Your task to perform on an android device: turn off location history Image 0: 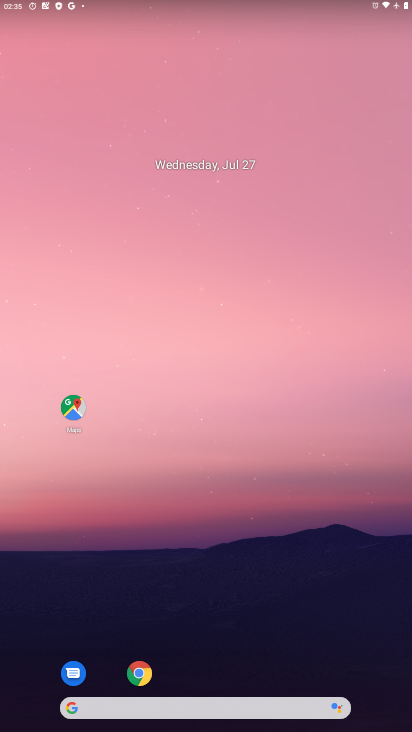
Step 0: click (71, 404)
Your task to perform on an android device: turn off location history Image 1: 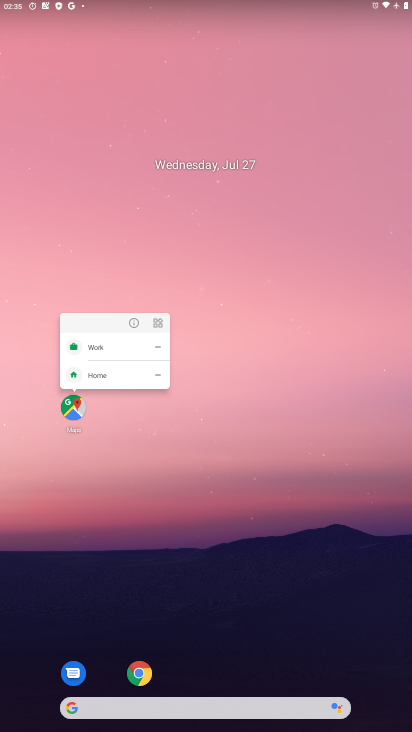
Step 1: click (72, 407)
Your task to perform on an android device: turn off location history Image 2: 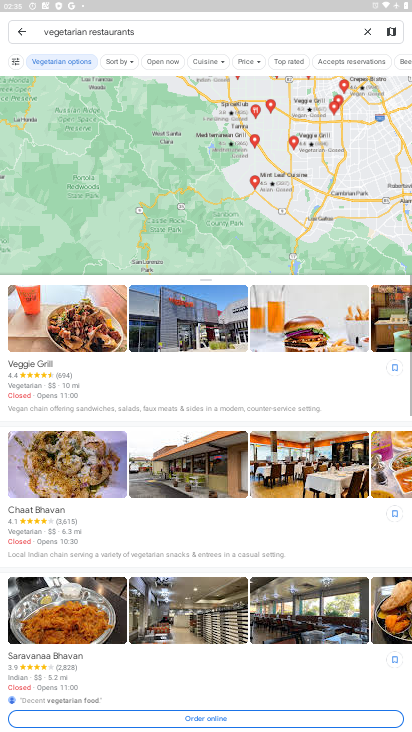
Step 2: click (369, 31)
Your task to perform on an android device: turn off location history Image 3: 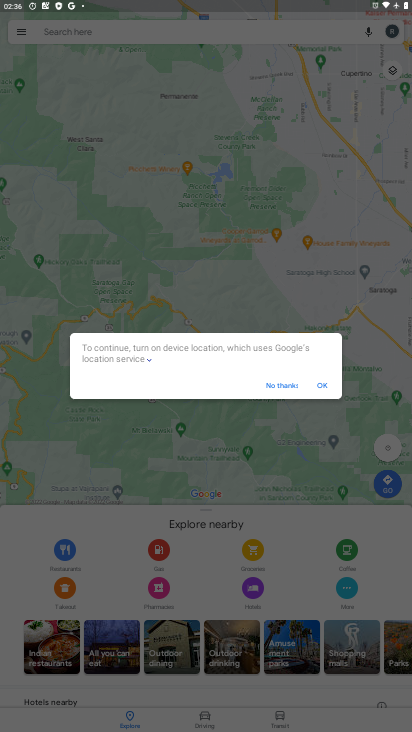
Step 3: click (257, 384)
Your task to perform on an android device: turn off location history Image 4: 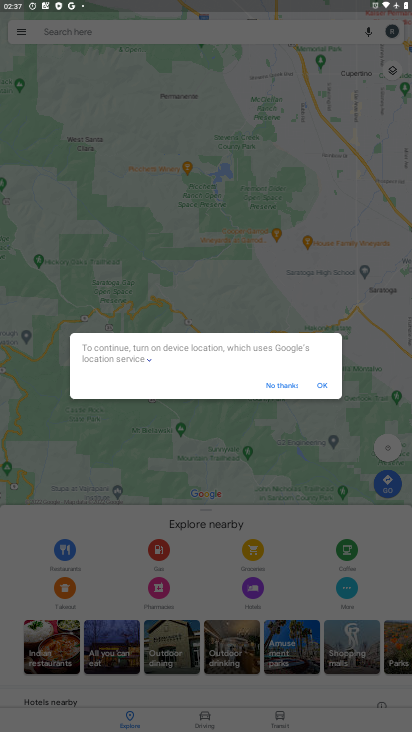
Step 4: click (277, 387)
Your task to perform on an android device: turn off location history Image 5: 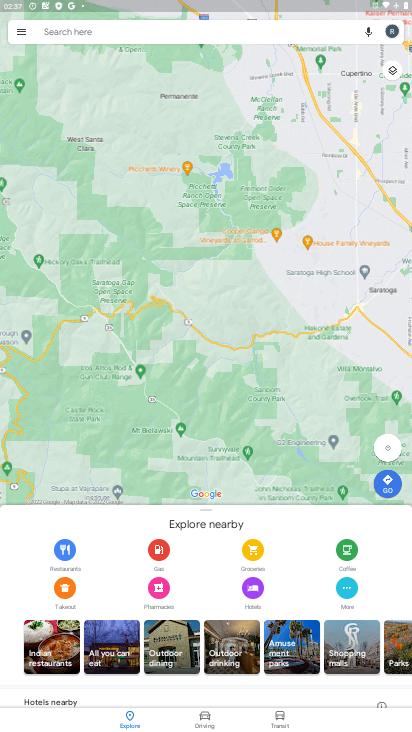
Step 5: click (18, 33)
Your task to perform on an android device: turn off location history Image 6: 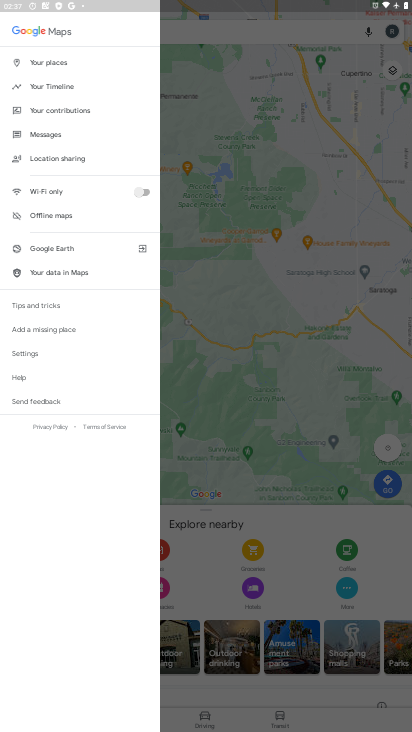
Step 6: click (28, 88)
Your task to perform on an android device: turn off location history Image 7: 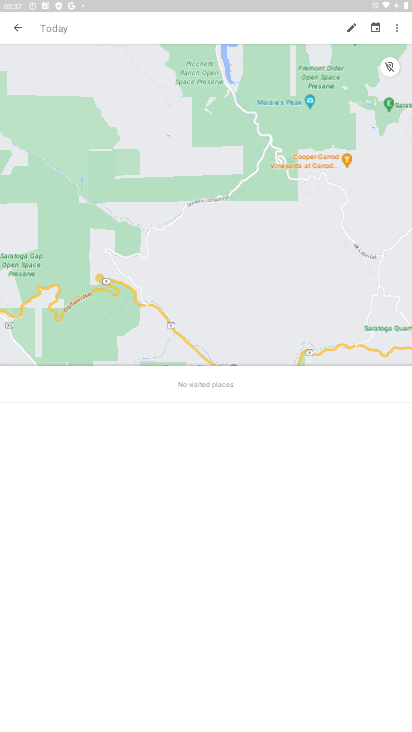
Step 7: click (398, 29)
Your task to perform on an android device: turn off location history Image 8: 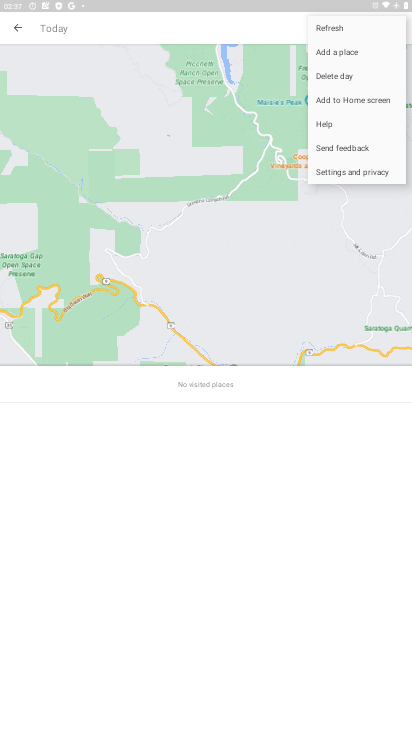
Step 8: click (334, 175)
Your task to perform on an android device: turn off location history Image 9: 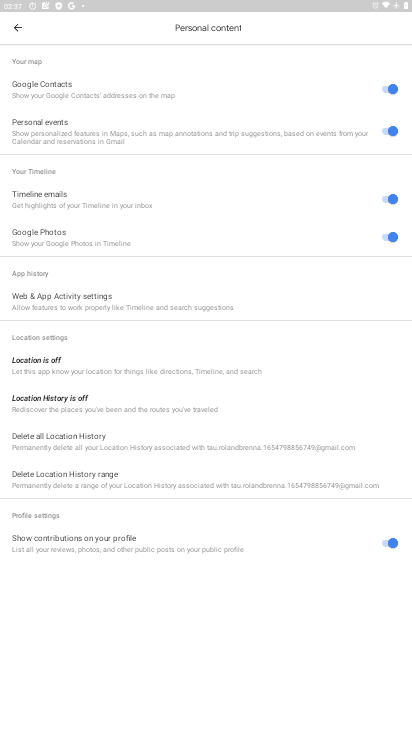
Step 9: click (48, 410)
Your task to perform on an android device: turn off location history Image 10: 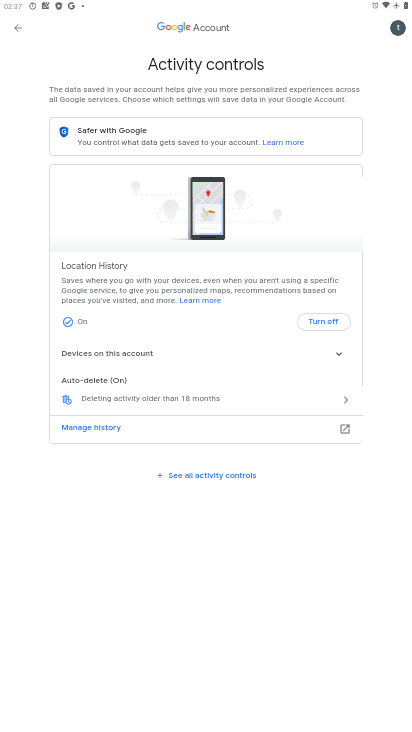
Step 10: click (327, 325)
Your task to perform on an android device: turn off location history Image 11: 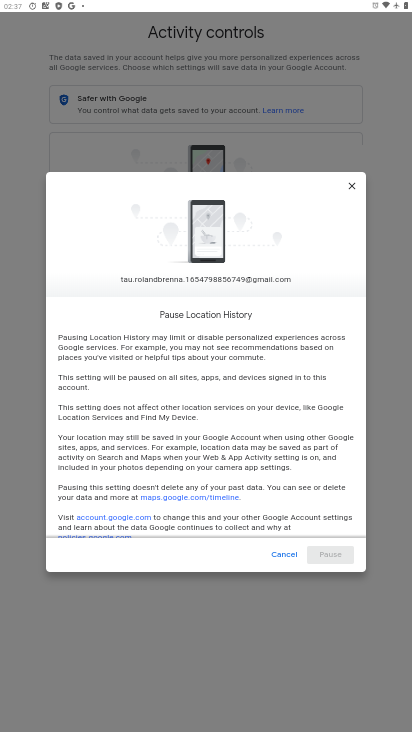
Step 11: drag from (288, 496) to (285, 229)
Your task to perform on an android device: turn off location history Image 12: 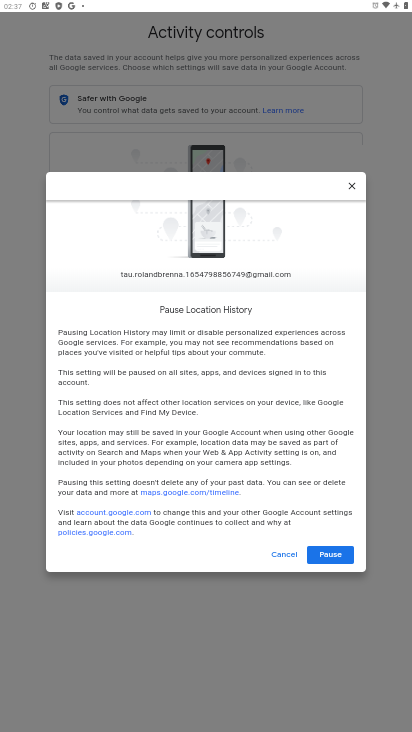
Step 12: click (329, 558)
Your task to perform on an android device: turn off location history Image 13: 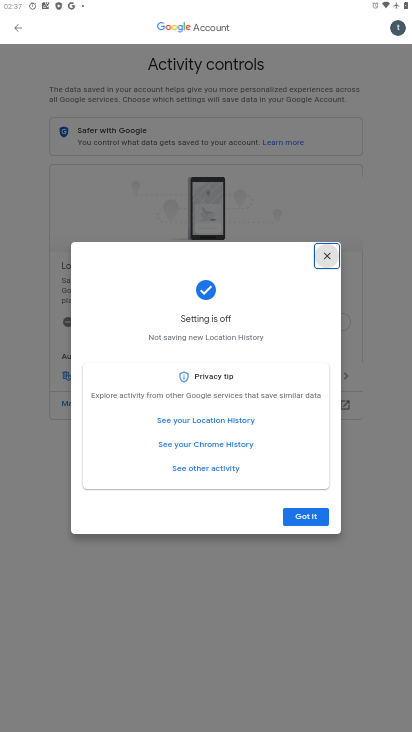
Step 13: click (307, 520)
Your task to perform on an android device: turn off location history Image 14: 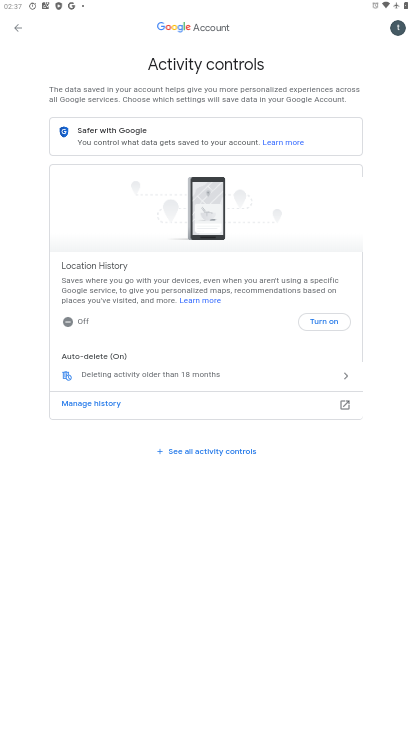
Step 14: task complete